Your task to perform on an android device: See recent photos Image 0: 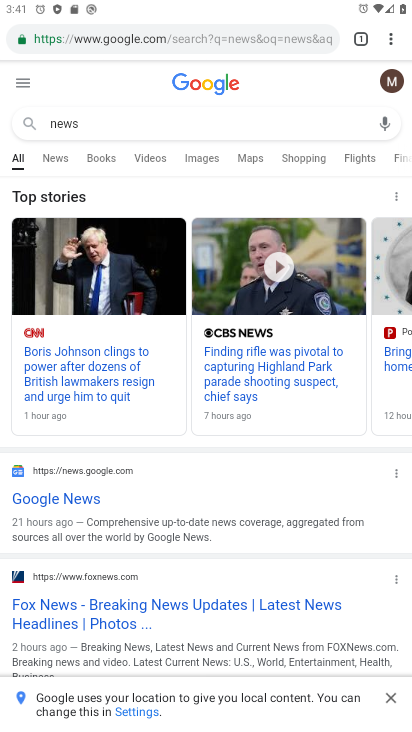
Step 0: drag from (271, 661) to (340, 305)
Your task to perform on an android device: See recent photos Image 1: 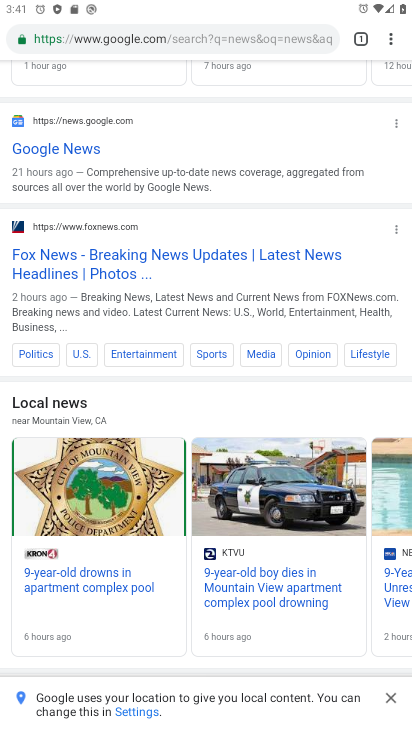
Step 1: press home button
Your task to perform on an android device: See recent photos Image 2: 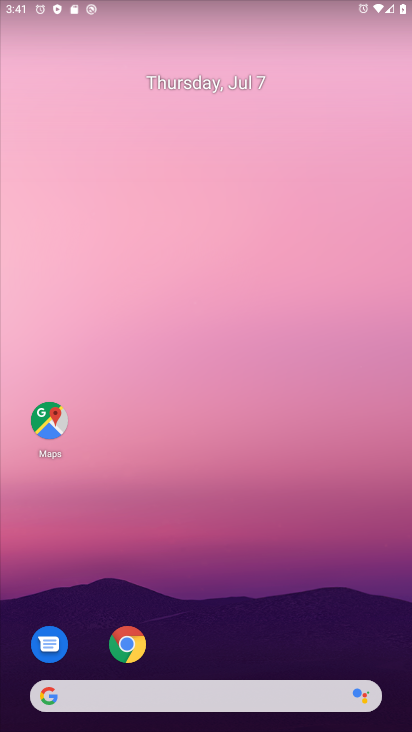
Step 2: drag from (328, 638) to (389, 249)
Your task to perform on an android device: See recent photos Image 3: 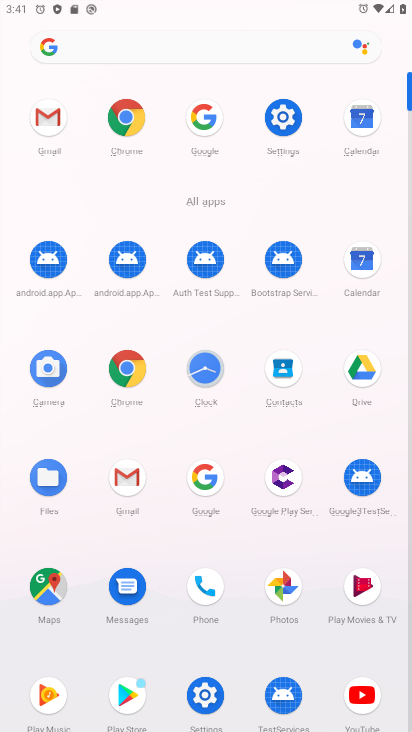
Step 3: click (292, 613)
Your task to perform on an android device: See recent photos Image 4: 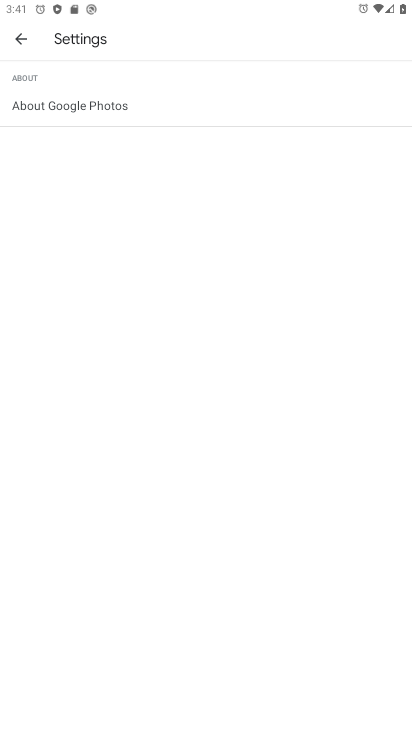
Step 4: click (10, 35)
Your task to perform on an android device: See recent photos Image 5: 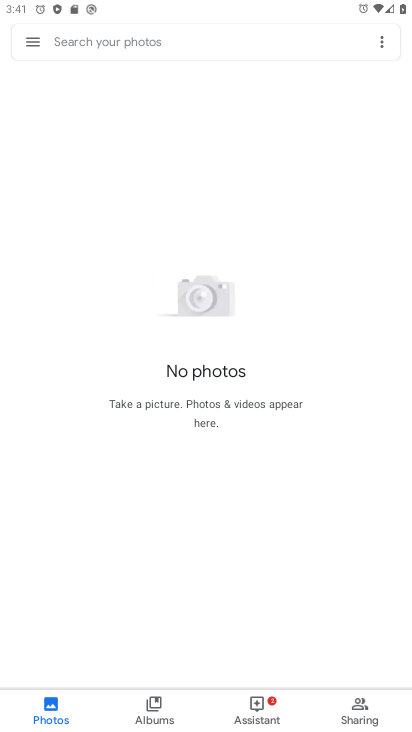
Step 5: task complete